Your task to perform on an android device: set the timer Image 0: 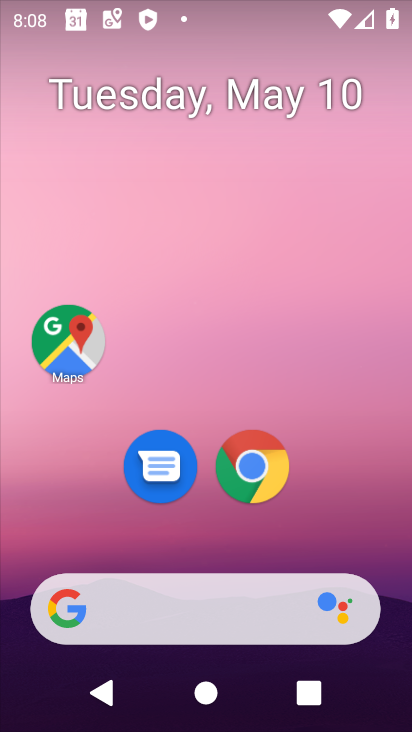
Step 0: drag from (327, 525) to (291, 126)
Your task to perform on an android device: set the timer Image 1: 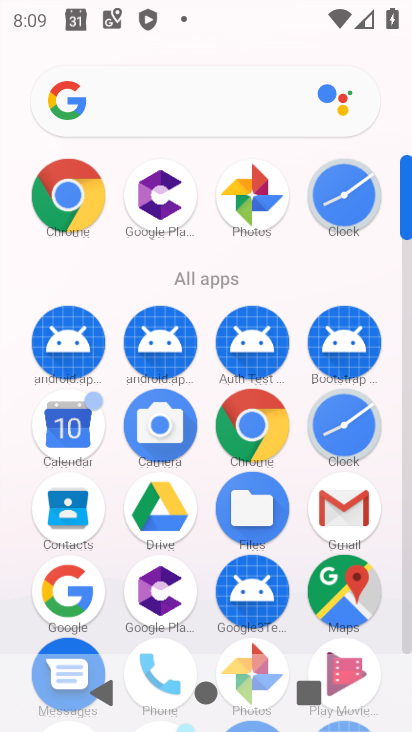
Step 1: click (344, 175)
Your task to perform on an android device: set the timer Image 2: 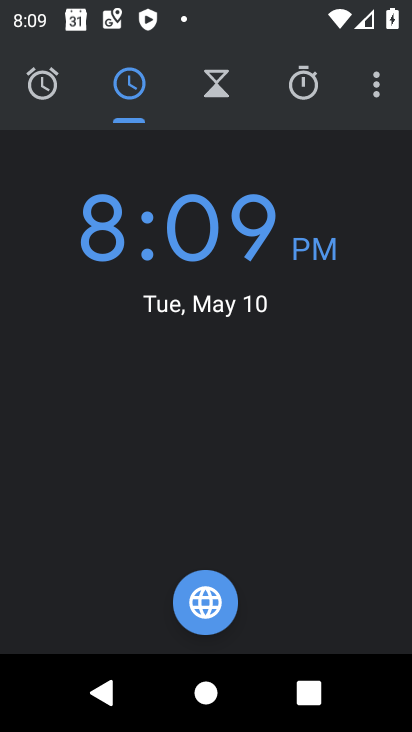
Step 2: click (224, 94)
Your task to perform on an android device: set the timer Image 3: 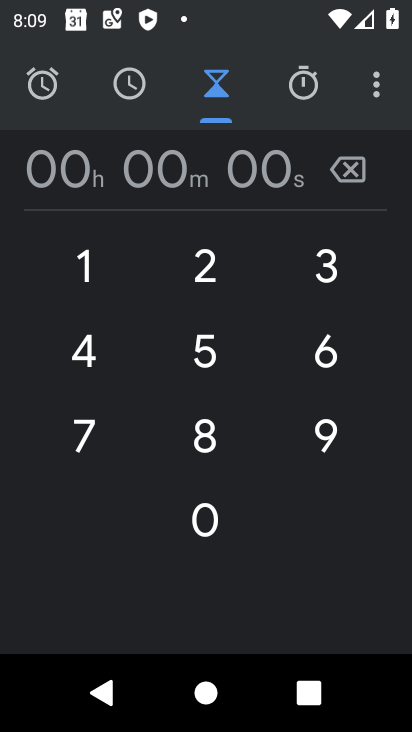
Step 3: click (218, 536)
Your task to perform on an android device: set the timer Image 4: 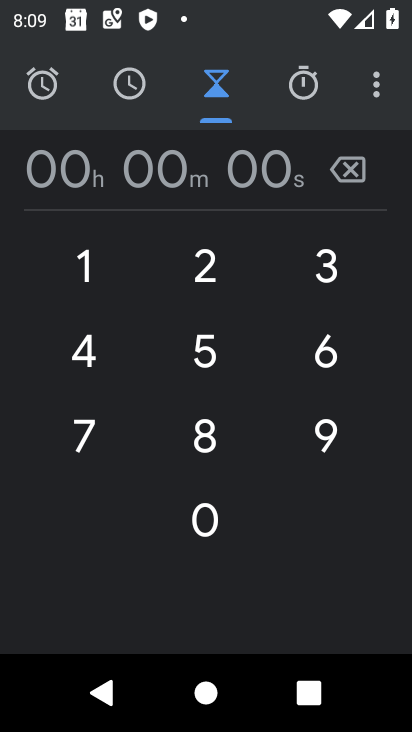
Step 4: click (80, 271)
Your task to perform on an android device: set the timer Image 5: 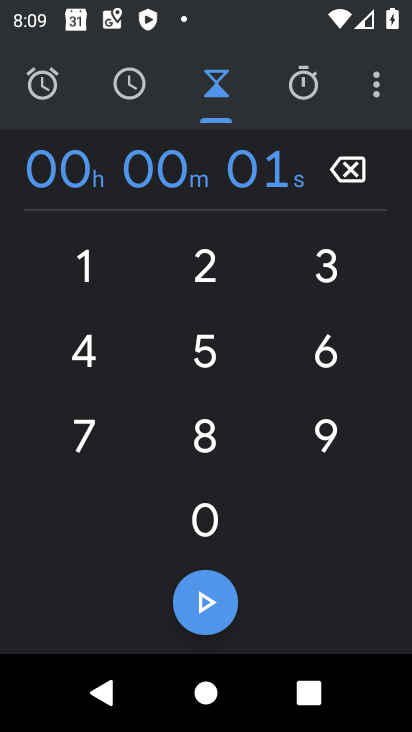
Step 5: click (336, 254)
Your task to perform on an android device: set the timer Image 6: 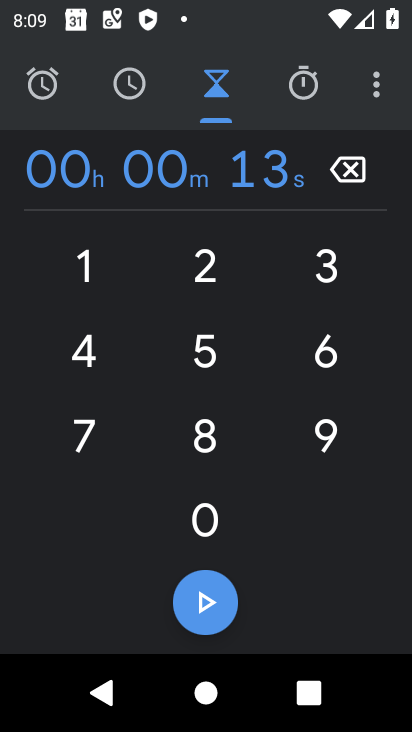
Step 6: click (89, 448)
Your task to perform on an android device: set the timer Image 7: 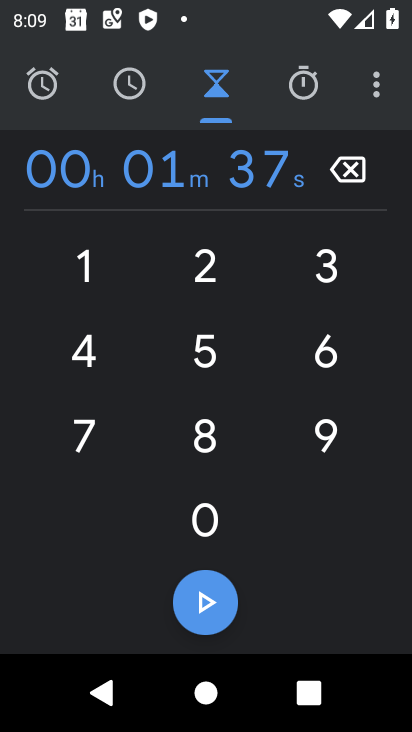
Step 7: click (307, 422)
Your task to perform on an android device: set the timer Image 8: 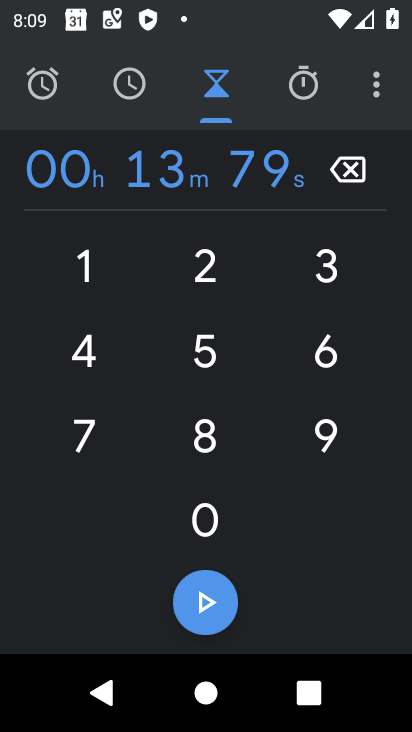
Step 8: click (96, 349)
Your task to perform on an android device: set the timer Image 9: 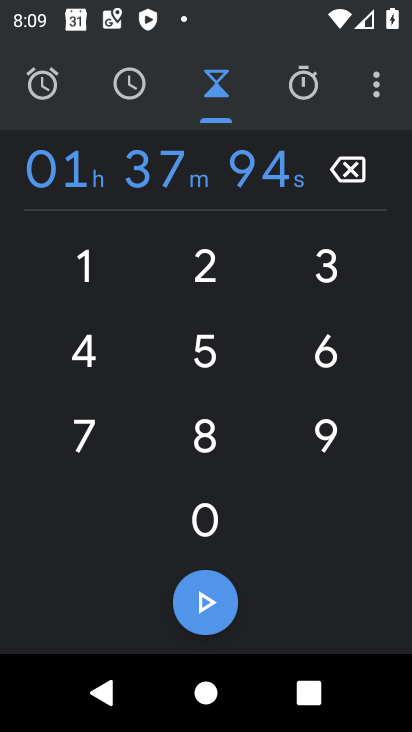
Step 9: click (328, 345)
Your task to perform on an android device: set the timer Image 10: 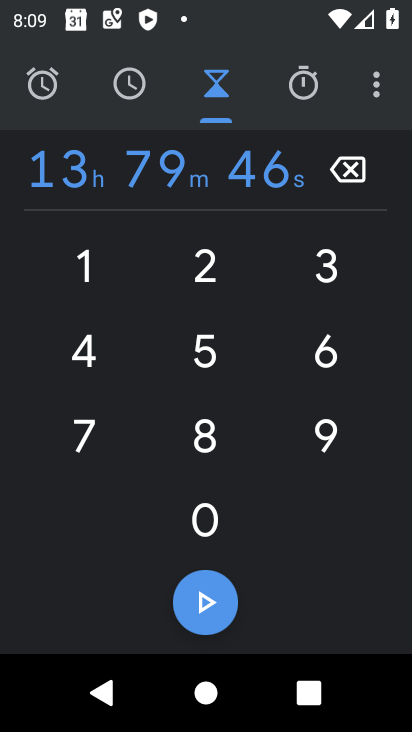
Step 10: click (209, 592)
Your task to perform on an android device: set the timer Image 11: 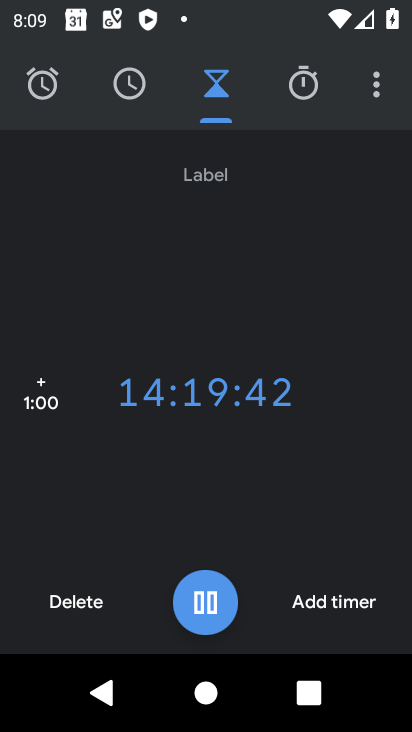
Step 11: task complete